Your task to perform on an android device: turn vacation reply on in the gmail app Image 0: 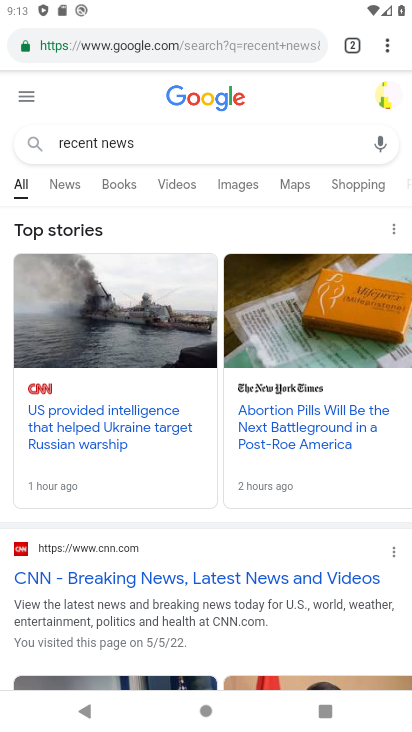
Step 0: press home button
Your task to perform on an android device: turn vacation reply on in the gmail app Image 1: 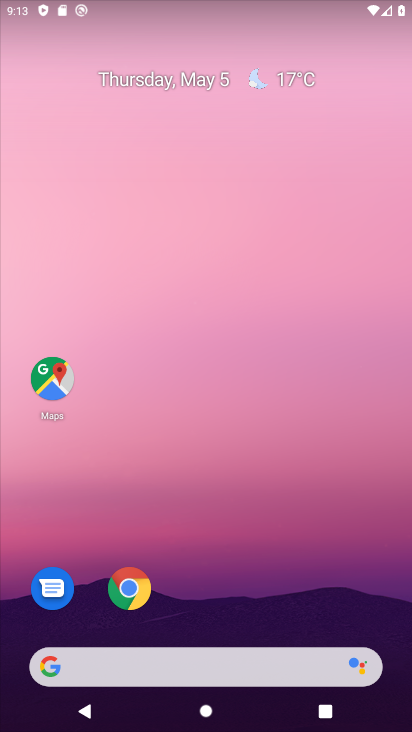
Step 1: drag from (273, 594) to (334, 254)
Your task to perform on an android device: turn vacation reply on in the gmail app Image 2: 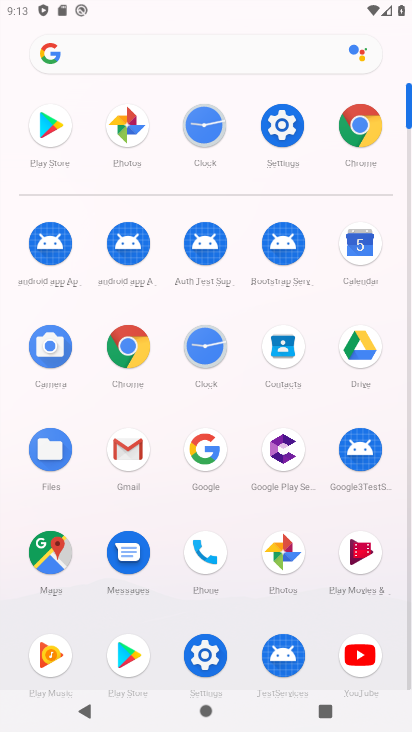
Step 2: click (134, 452)
Your task to perform on an android device: turn vacation reply on in the gmail app Image 3: 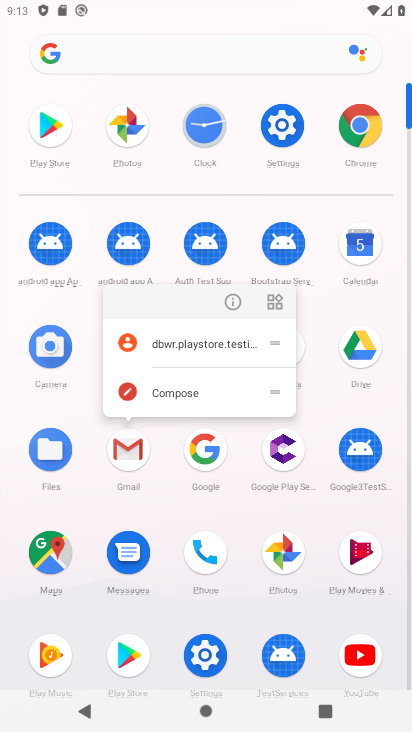
Step 3: click (134, 450)
Your task to perform on an android device: turn vacation reply on in the gmail app Image 4: 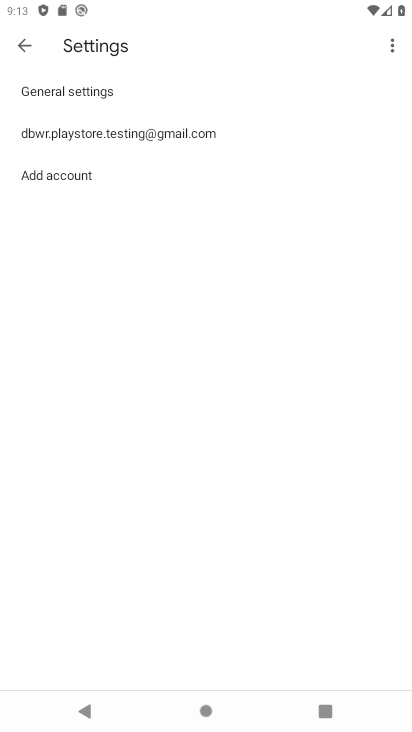
Step 4: click (151, 138)
Your task to perform on an android device: turn vacation reply on in the gmail app Image 5: 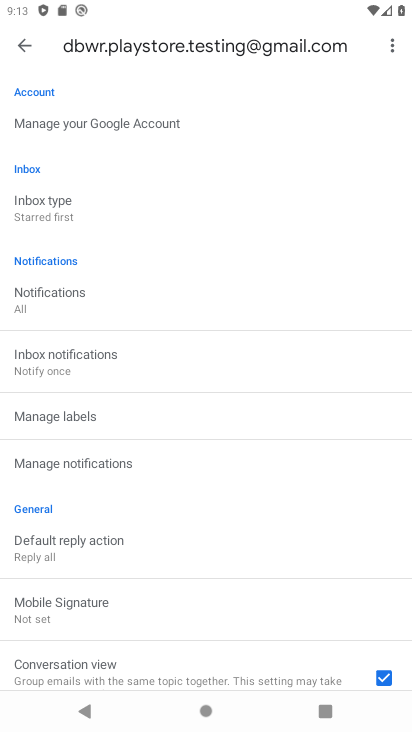
Step 5: drag from (168, 625) to (236, 294)
Your task to perform on an android device: turn vacation reply on in the gmail app Image 6: 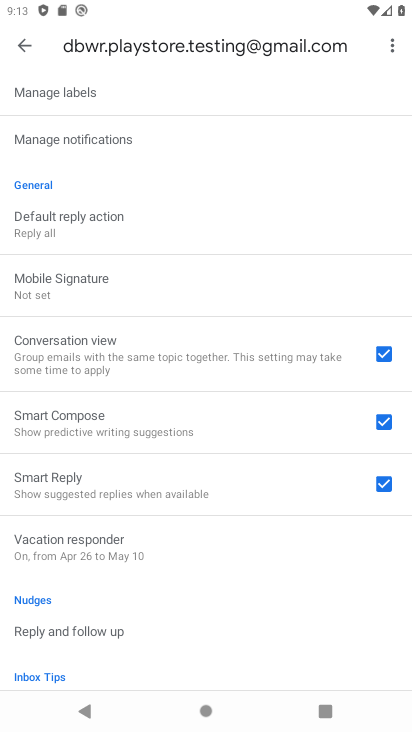
Step 6: click (144, 553)
Your task to perform on an android device: turn vacation reply on in the gmail app Image 7: 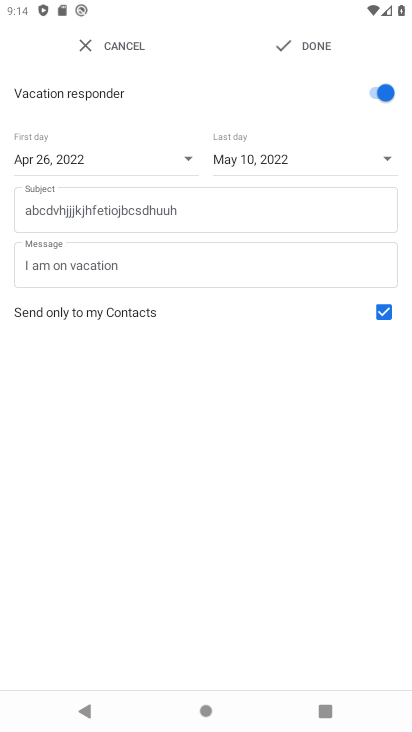
Step 7: task complete